Your task to perform on an android device: change notification settings in the gmail app Image 0: 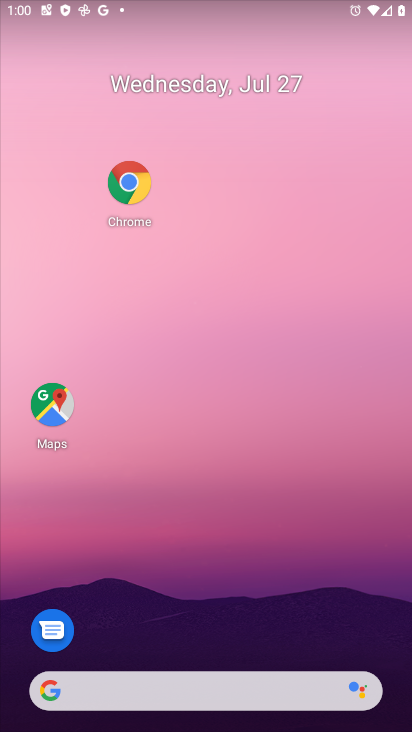
Step 0: drag from (278, 714) to (290, 25)
Your task to perform on an android device: change notification settings in the gmail app Image 1: 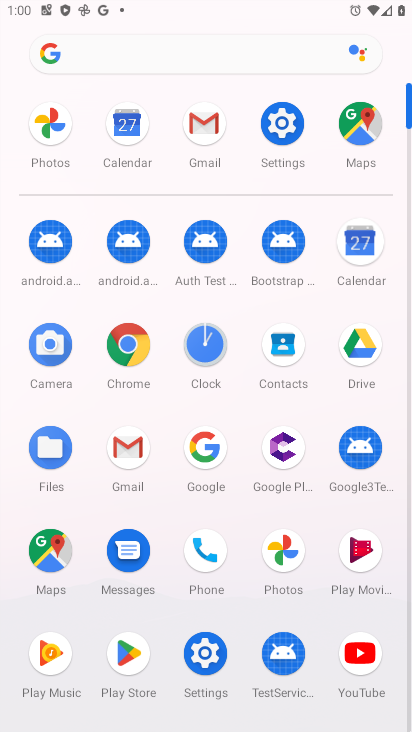
Step 1: click (209, 133)
Your task to perform on an android device: change notification settings in the gmail app Image 2: 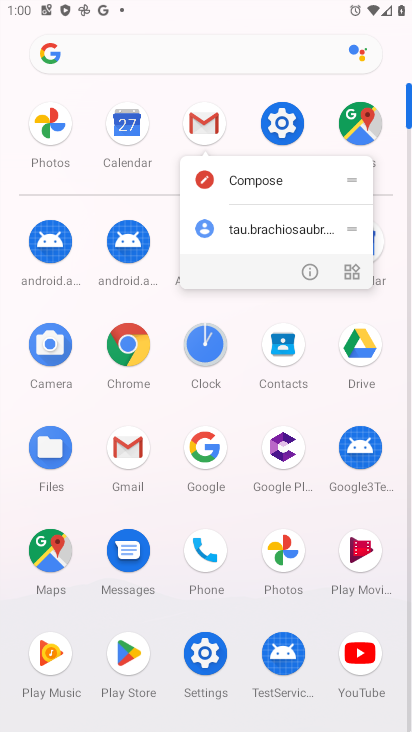
Step 2: click (314, 275)
Your task to perform on an android device: change notification settings in the gmail app Image 3: 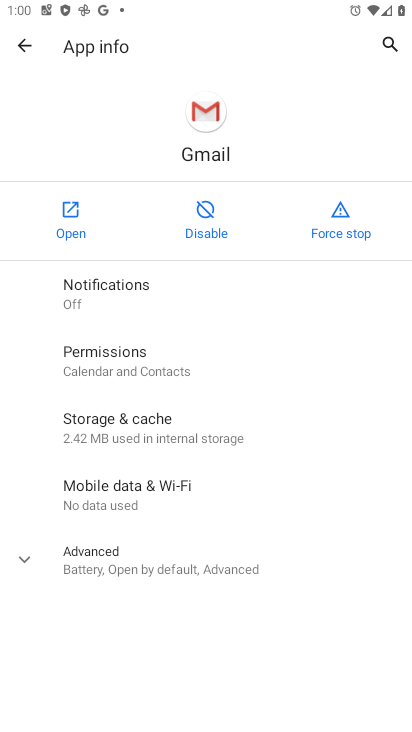
Step 3: click (228, 284)
Your task to perform on an android device: change notification settings in the gmail app Image 4: 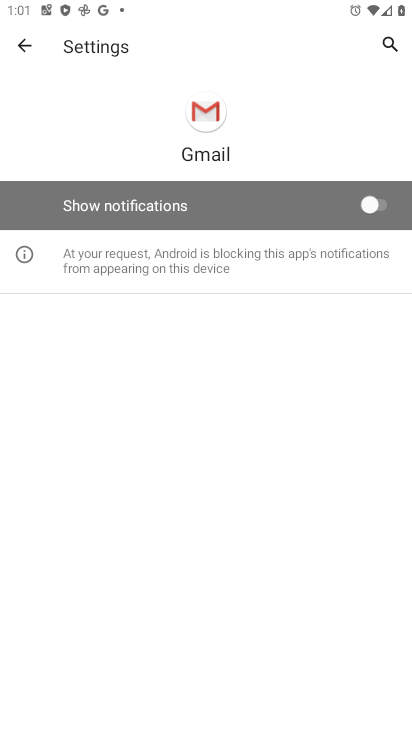
Step 4: click (383, 205)
Your task to perform on an android device: change notification settings in the gmail app Image 5: 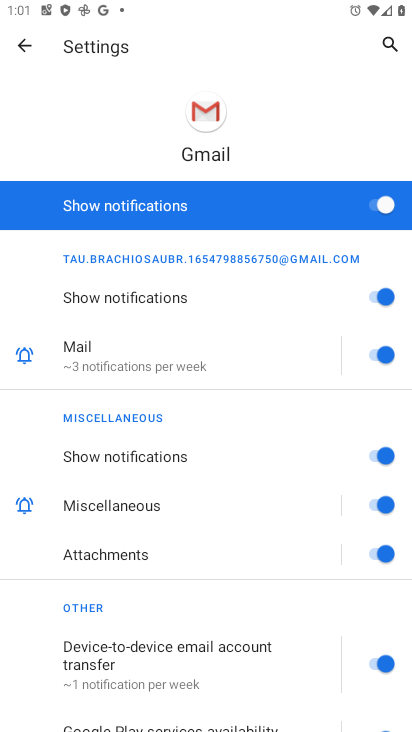
Step 5: task complete